Your task to perform on an android device: Go to sound settings Image 0: 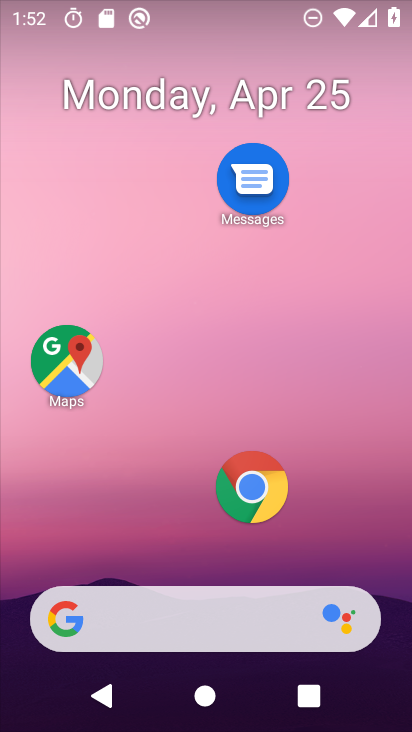
Step 0: drag from (284, 547) to (294, 17)
Your task to perform on an android device: Go to sound settings Image 1: 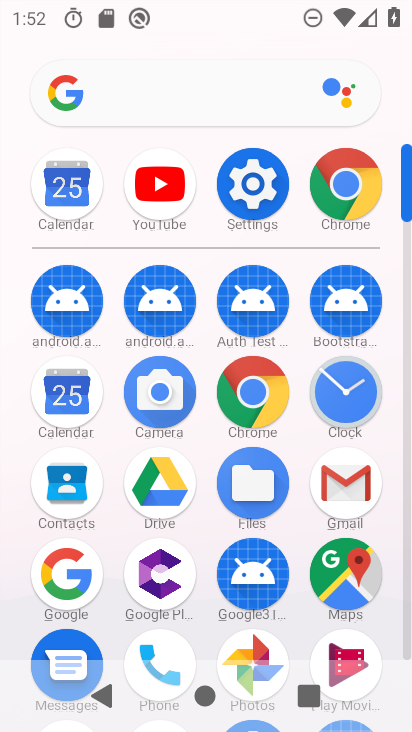
Step 1: drag from (296, 642) to (293, 232)
Your task to perform on an android device: Go to sound settings Image 2: 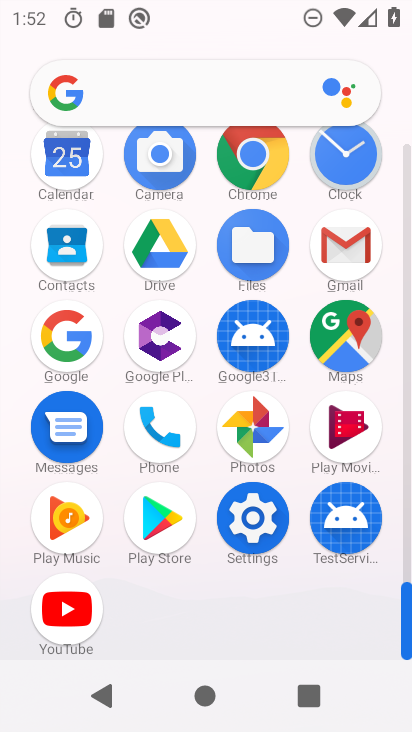
Step 2: click (266, 532)
Your task to perform on an android device: Go to sound settings Image 3: 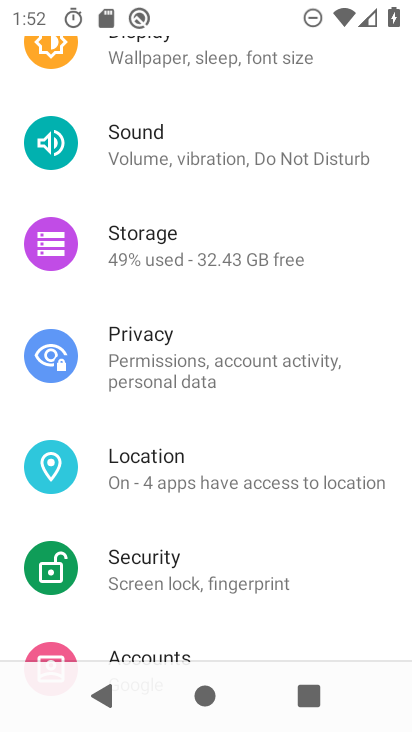
Step 3: click (236, 150)
Your task to perform on an android device: Go to sound settings Image 4: 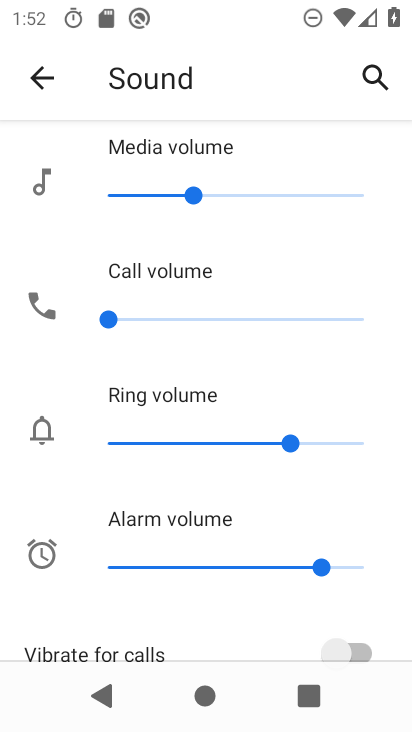
Step 4: task complete